Your task to perform on an android device: see tabs open on other devices in the chrome app Image 0: 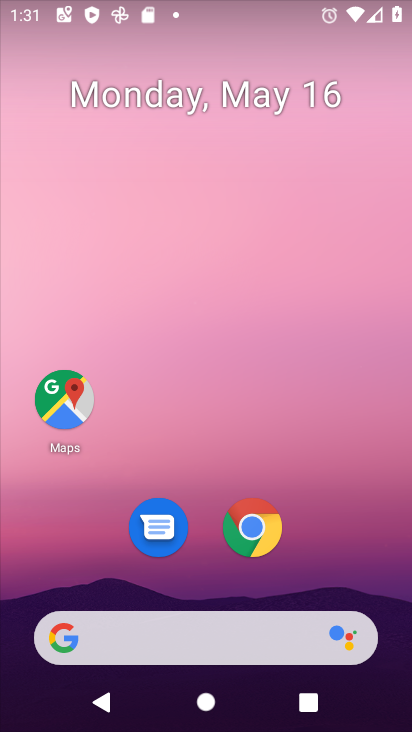
Step 0: click (255, 537)
Your task to perform on an android device: see tabs open on other devices in the chrome app Image 1: 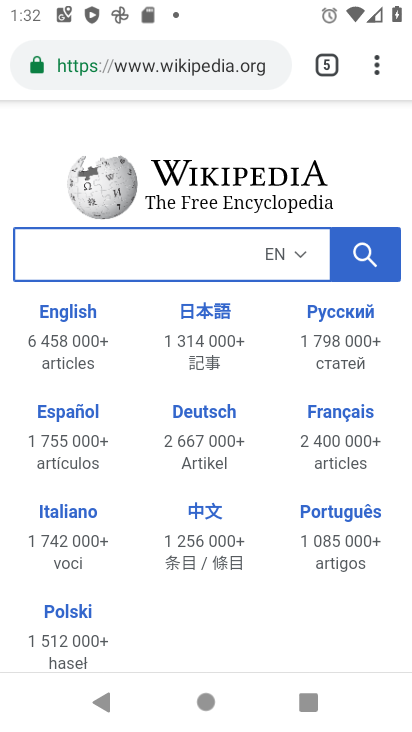
Step 1: click (366, 70)
Your task to perform on an android device: see tabs open on other devices in the chrome app Image 2: 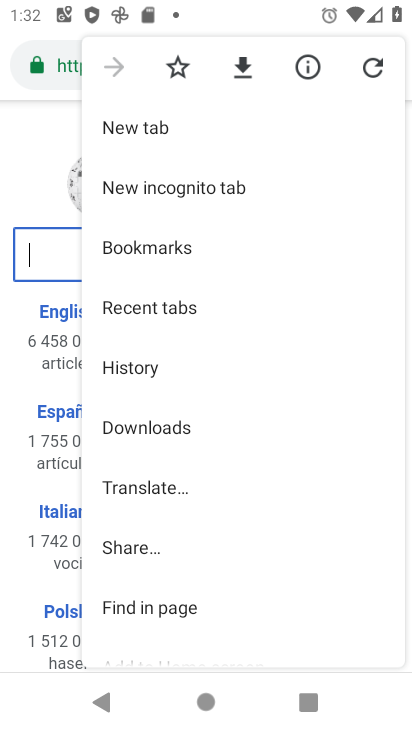
Step 2: click (194, 315)
Your task to perform on an android device: see tabs open on other devices in the chrome app Image 3: 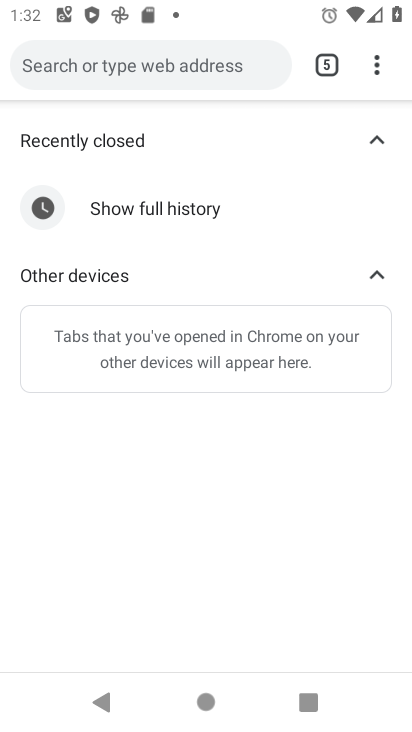
Step 3: task complete